Your task to perform on an android device: Open accessibility settings Image 0: 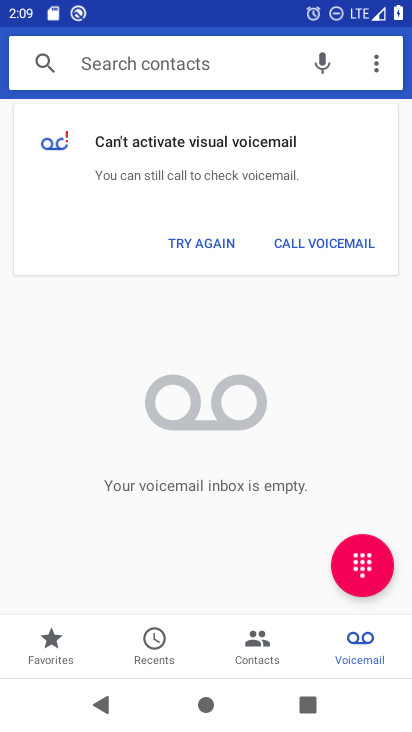
Step 0: press home button
Your task to perform on an android device: Open accessibility settings Image 1: 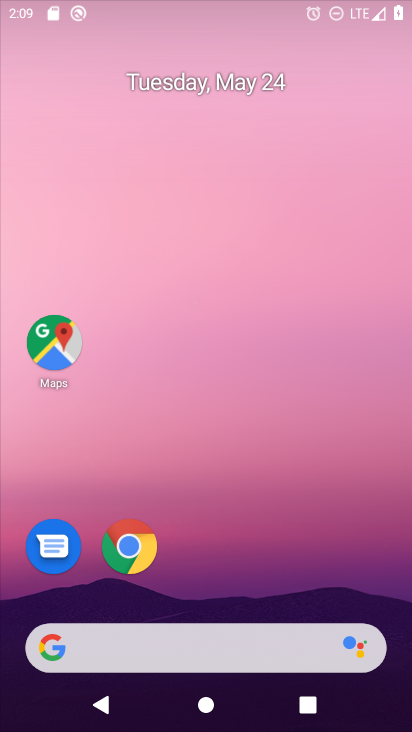
Step 1: drag from (242, 625) to (313, 49)
Your task to perform on an android device: Open accessibility settings Image 2: 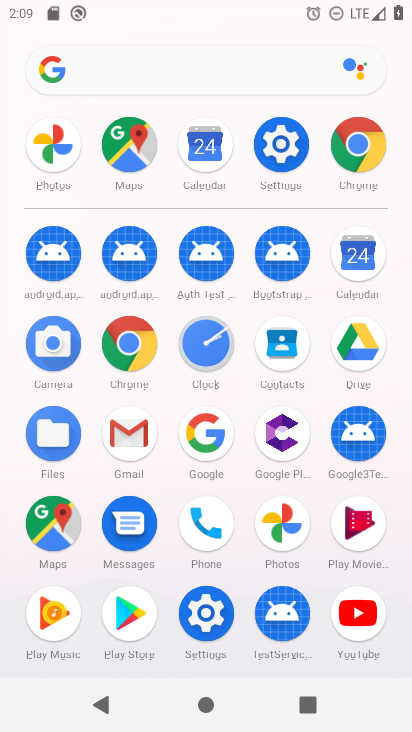
Step 2: click (291, 146)
Your task to perform on an android device: Open accessibility settings Image 3: 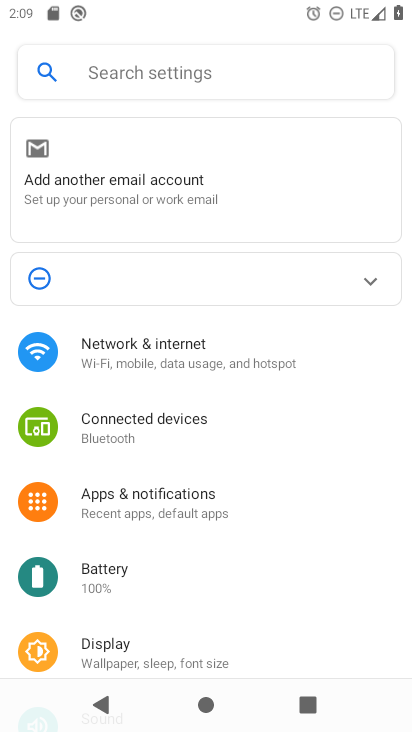
Step 3: drag from (272, 630) to (278, 130)
Your task to perform on an android device: Open accessibility settings Image 4: 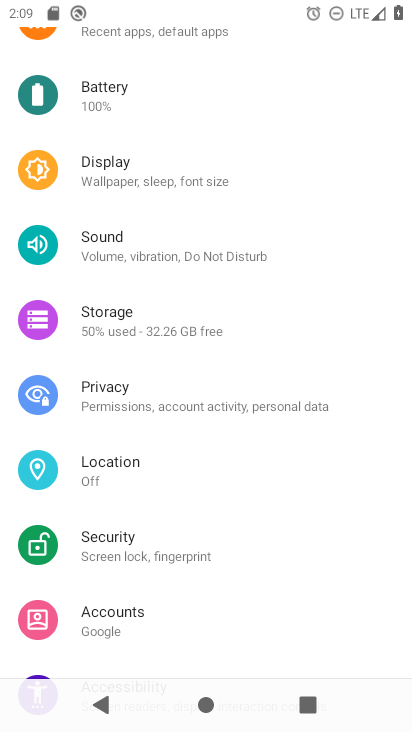
Step 4: drag from (215, 631) to (281, 165)
Your task to perform on an android device: Open accessibility settings Image 5: 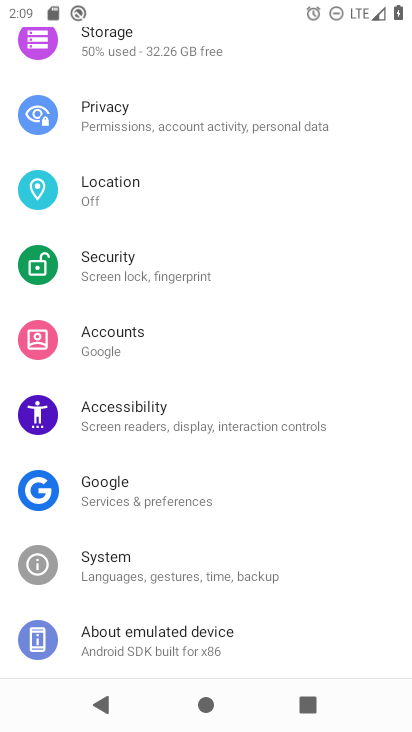
Step 5: click (150, 412)
Your task to perform on an android device: Open accessibility settings Image 6: 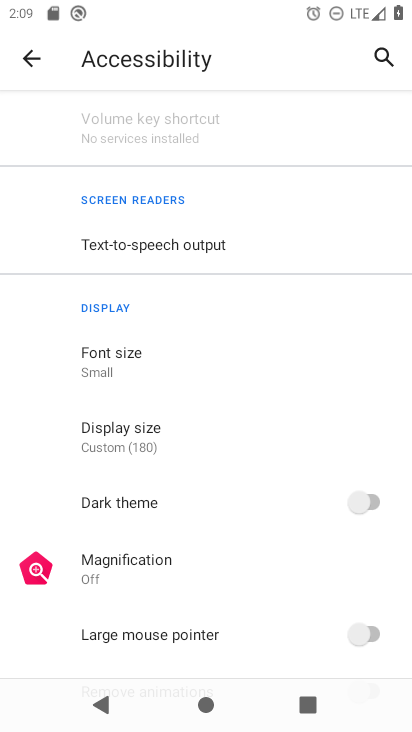
Step 6: task complete